Your task to perform on an android device: turn on wifi Image 0: 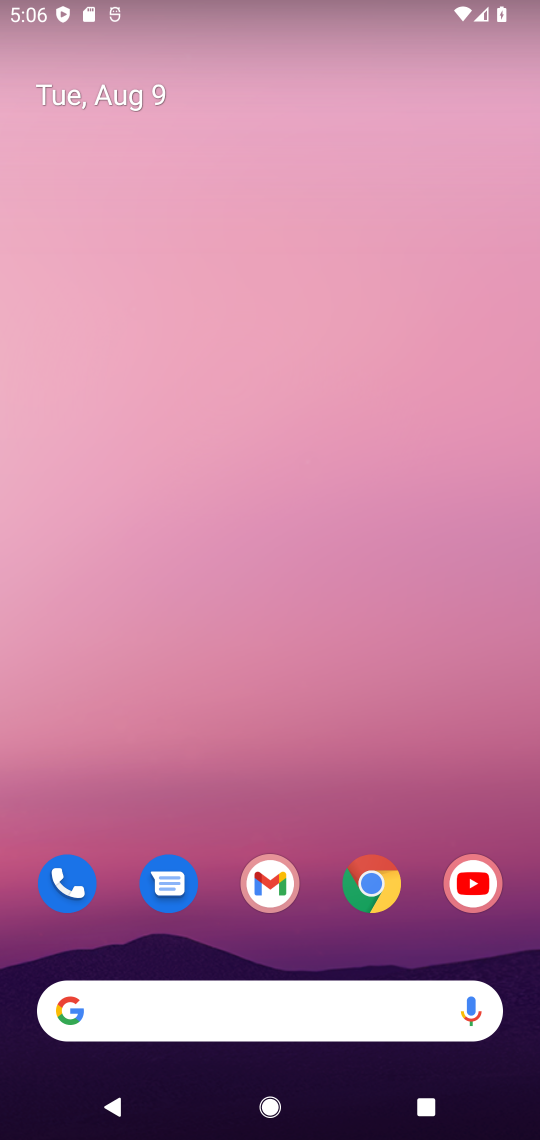
Step 0: drag from (275, 803) to (262, 155)
Your task to perform on an android device: turn on wifi Image 1: 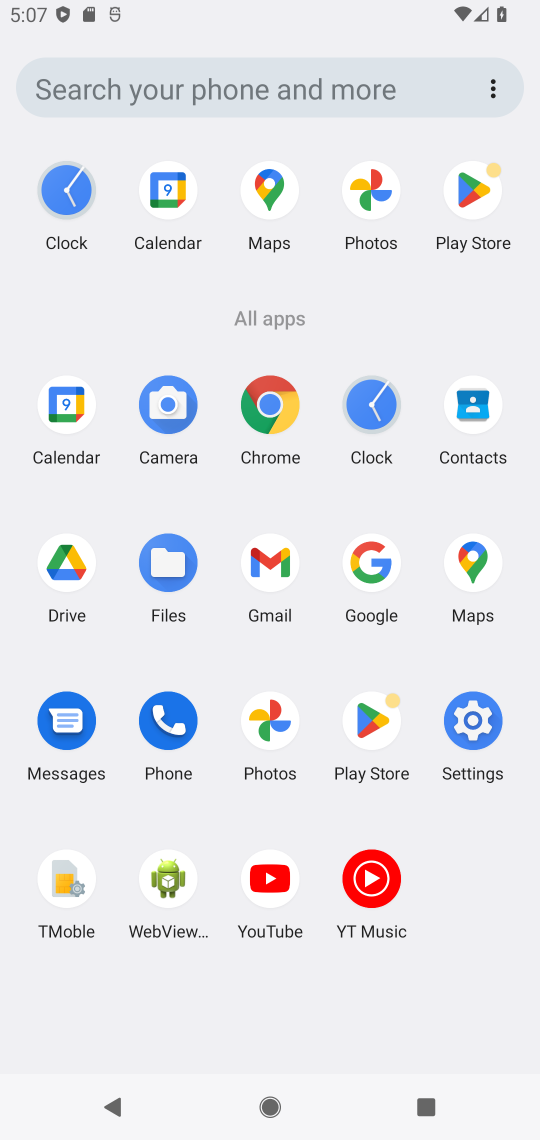
Step 1: click (463, 744)
Your task to perform on an android device: turn on wifi Image 2: 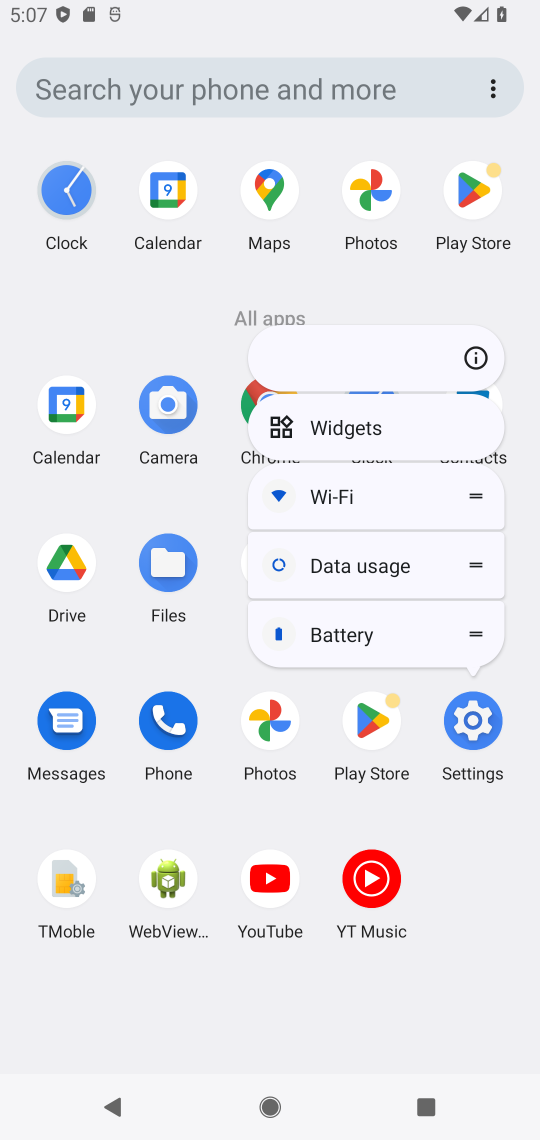
Step 2: click (463, 744)
Your task to perform on an android device: turn on wifi Image 3: 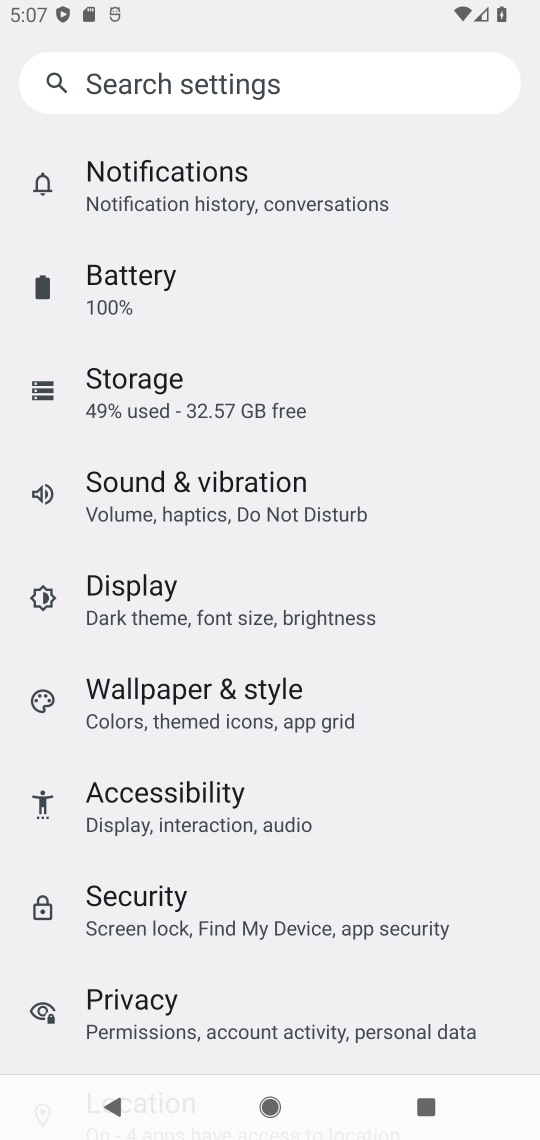
Step 3: drag from (260, 296) to (282, 731)
Your task to perform on an android device: turn on wifi Image 4: 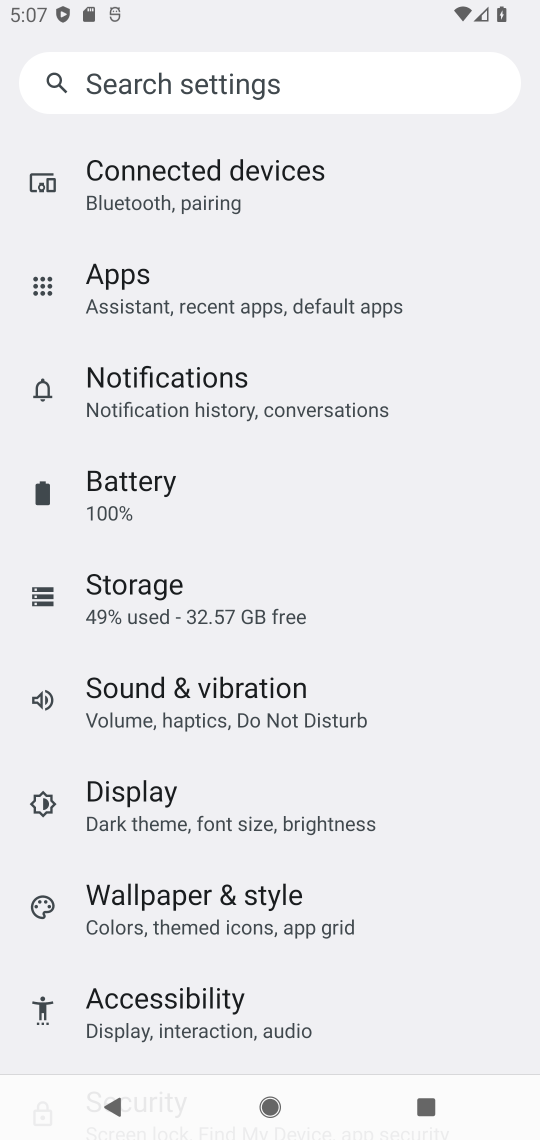
Step 4: drag from (248, 271) to (271, 910)
Your task to perform on an android device: turn on wifi Image 5: 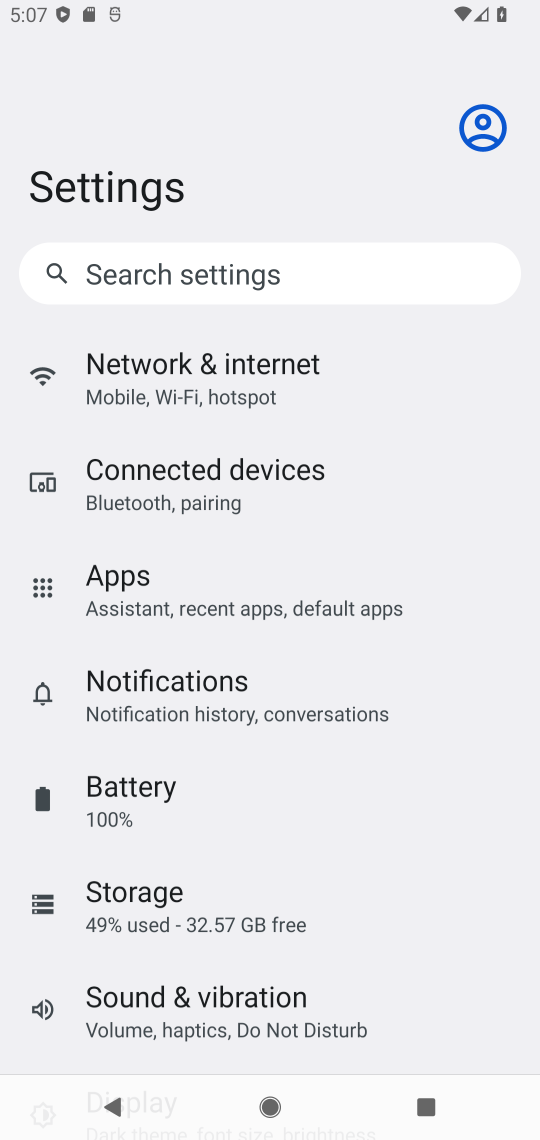
Step 5: click (188, 382)
Your task to perform on an android device: turn on wifi Image 6: 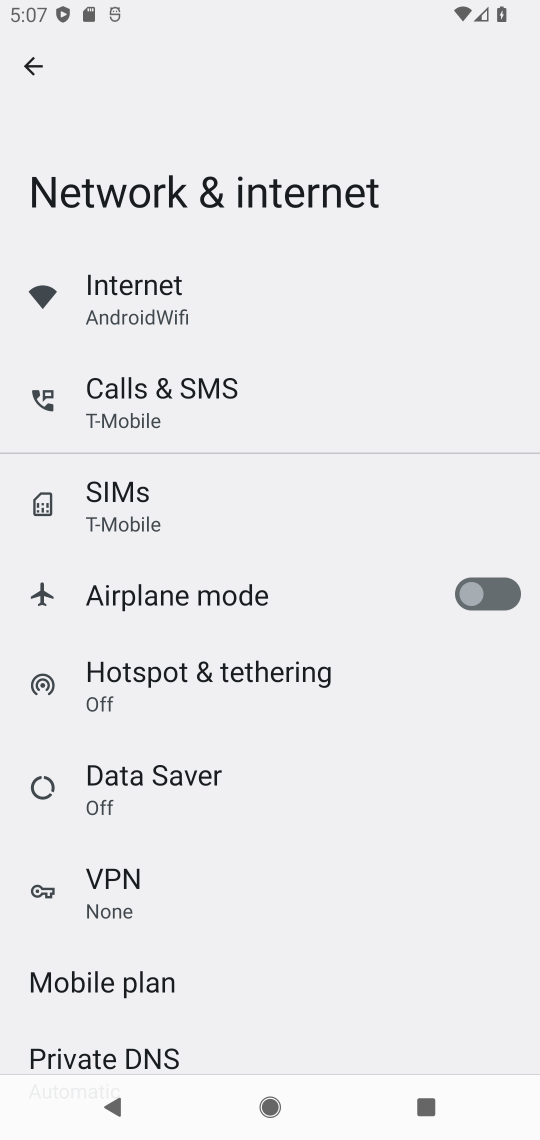
Step 6: click (155, 307)
Your task to perform on an android device: turn on wifi Image 7: 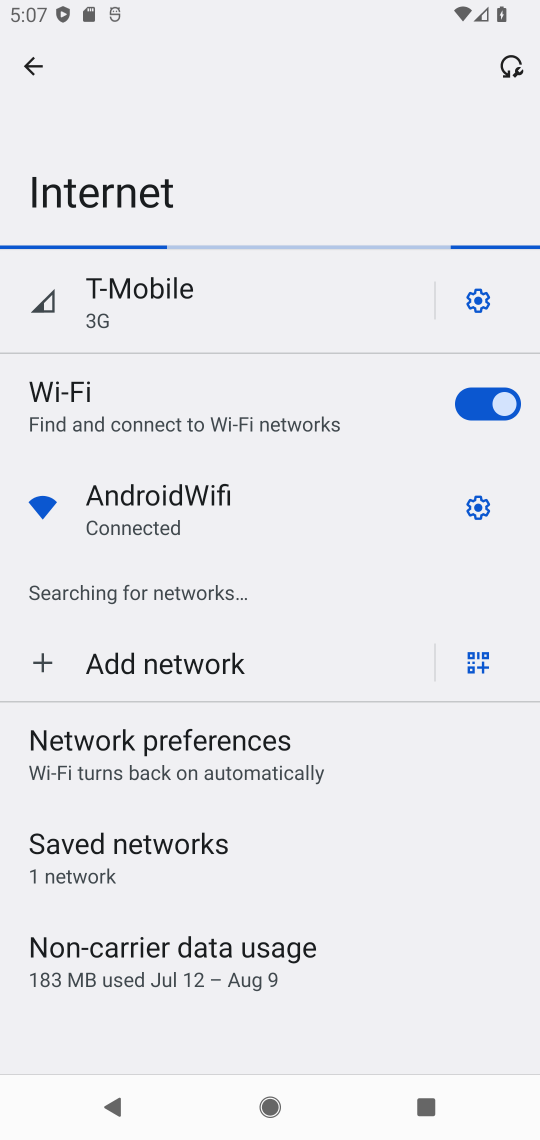
Step 7: task complete